Your task to perform on an android device: turn on priority inbox in the gmail app Image 0: 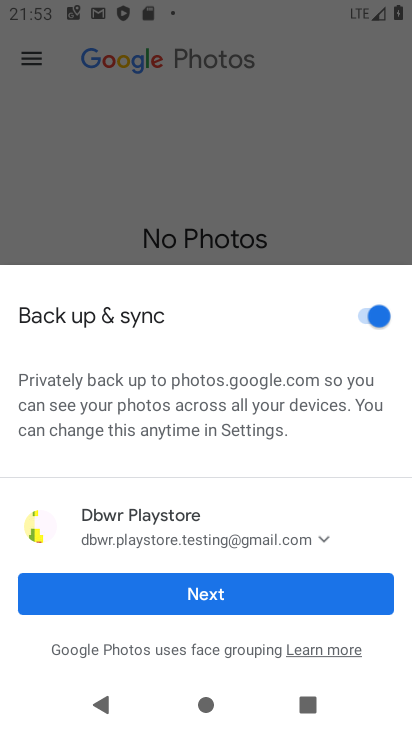
Step 0: press home button
Your task to perform on an android device: turn on priority inbox in the gmail app Image 1: 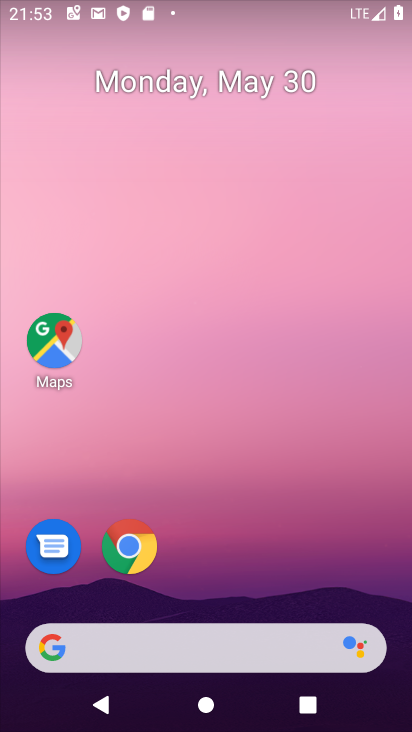
Step 1: drag from (238, 577) to (300, 197)
Your task to perform on an android device: turn on priority inbox in the gmail app Image 2: 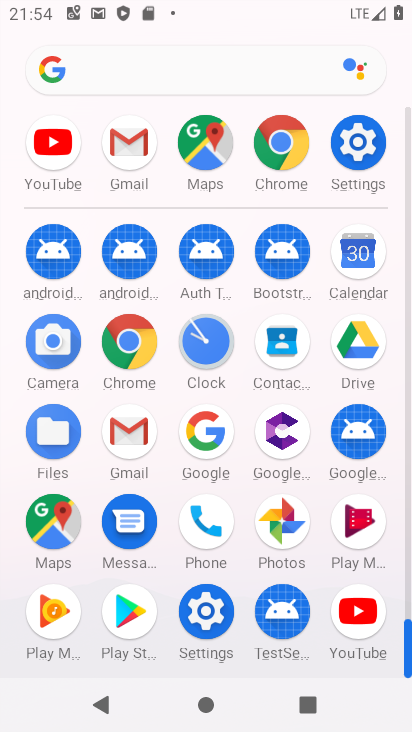
Step 2: click (140, 438)
Your task to perform on an android device: turn on priority inbox in the gmail app Image 3: 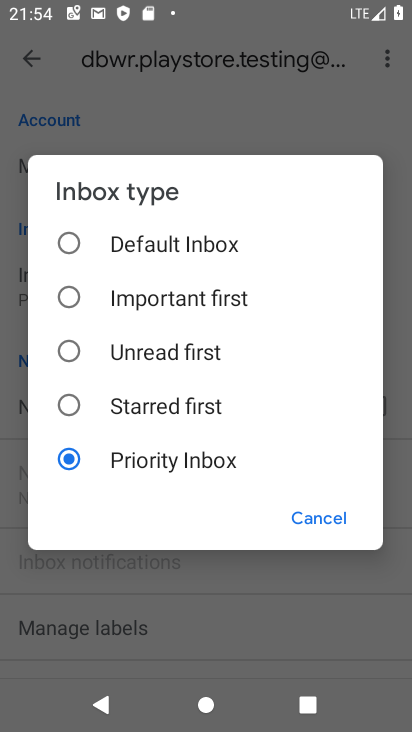
Step 3: click (321, 517)
Your task to perform on an android device: turn on priority inbox in the gmail app Image 4: 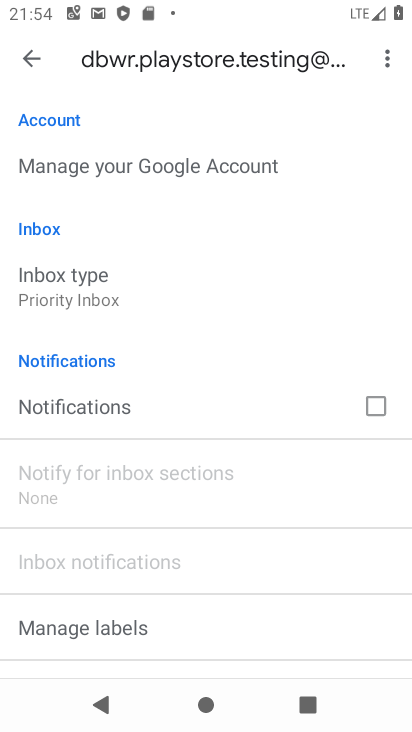
Step 4: task complete